Your task to perform on an android device: toggle pop-ups in chrome Image 0: 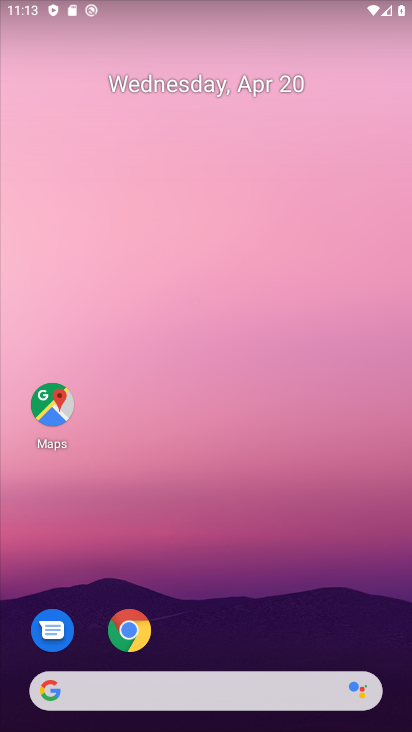
Step 0: click (120, 633)
Your task to perform on an android device: toggle pop-ups in chrome Image 1: 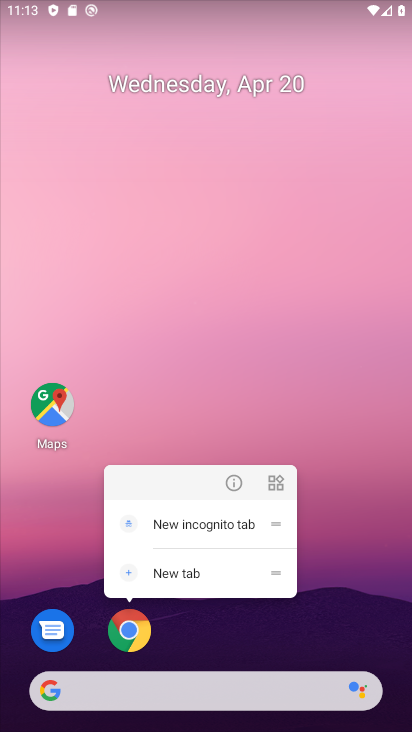
Step 1: click (129, 628)
Your task to perform on an android device: toggle pop-ups in chrome Image 2: 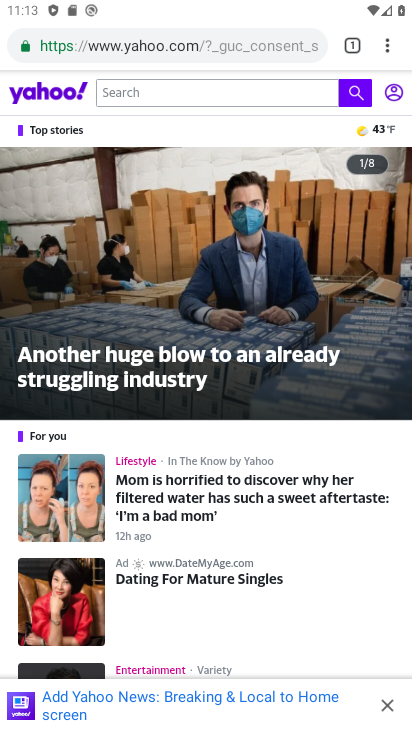
Step 2: drag from (389, 53) to (266, 547)
Your task to perform on an android device: toggle pop-ups in chrome Image 3: 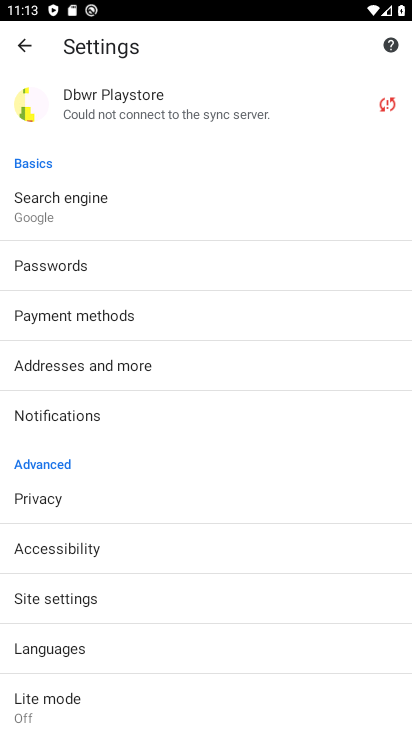
Step 3: drag from (158, 635) to (238, 322)
Your task to perform on an android device: toggle pop-ups in chrome Image 4: 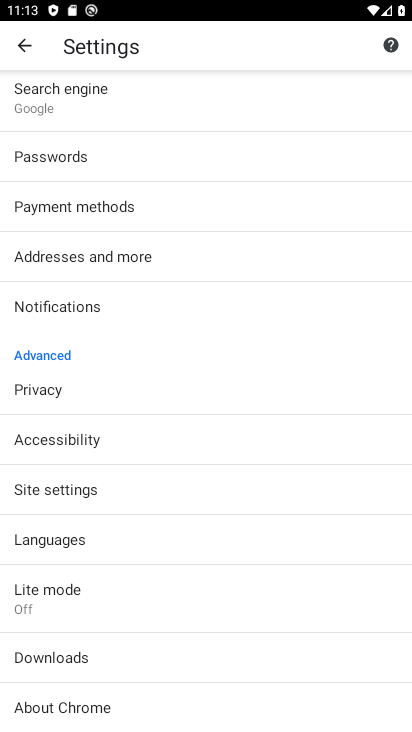
Step 4: click (112, 489)
Your task to perform on an android device: toggle pop-ups in chrome Image 5: 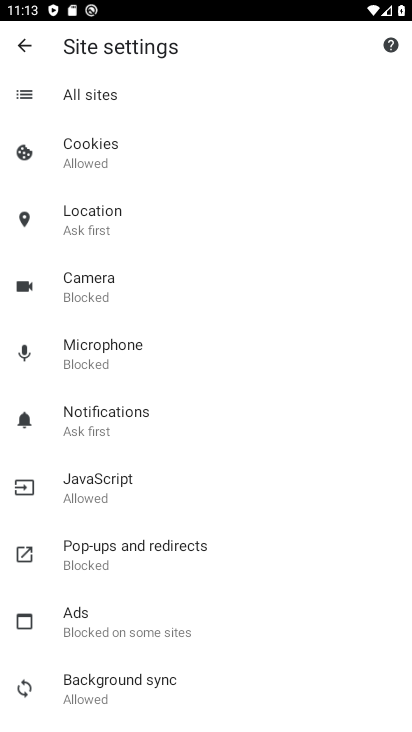
Step 5: click (161, 558)
Your task to perform on an android device: toggle pop-ups in chrome Image 6: 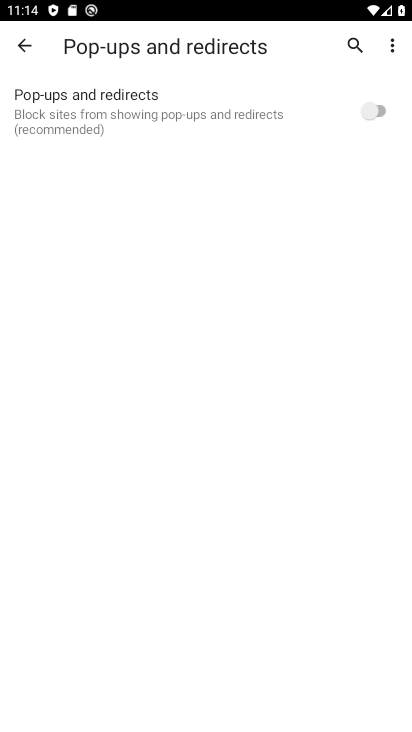
Step 6: click (405, 112)
Your task to perform on an android device: toggle pop-ups in chrome Image 7: 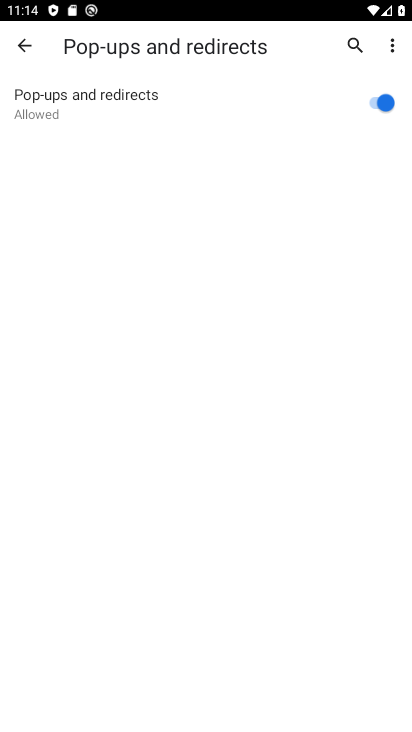
Step 7: task complete